Your task to perform on an android device: check data usage Image 0: 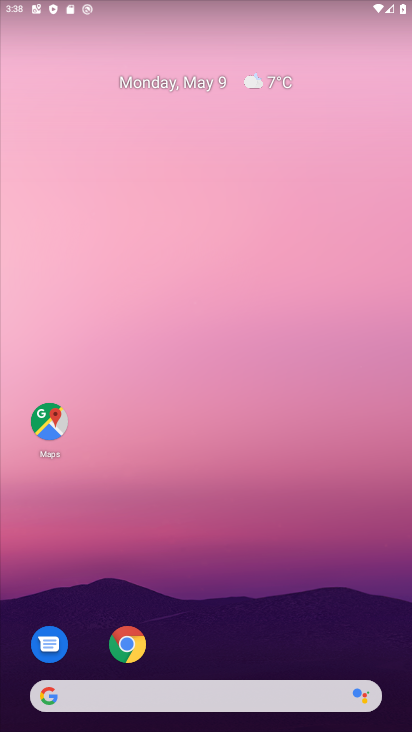
Step 0: click (272, 143)
Your task to perform on an android device: check data usage Image 1: 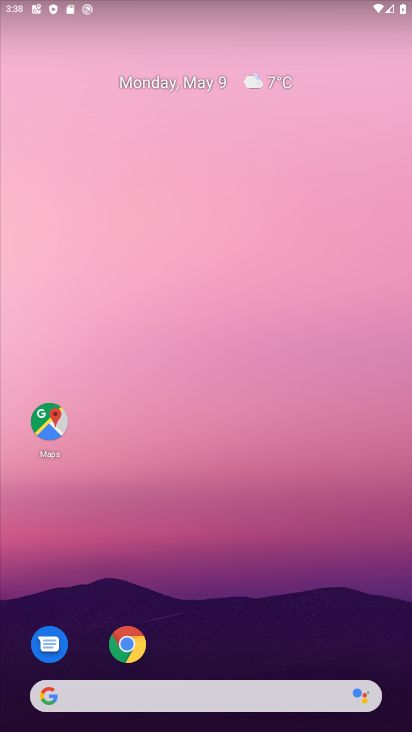
Step 1: drag from (294, 638) to (197, 81)
Your task to perform on an android device: check data usage Image 2: 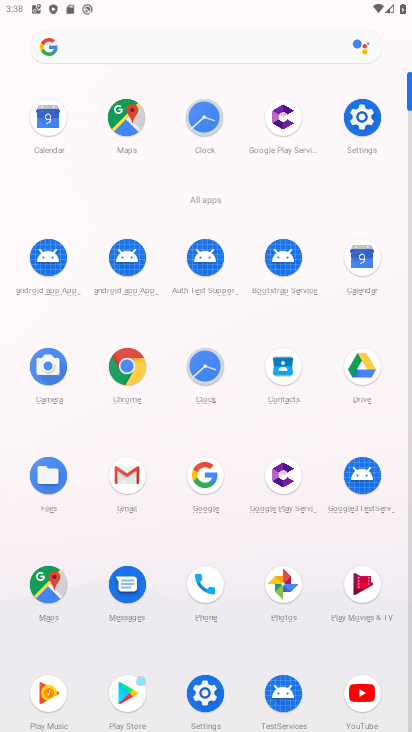
Step 2: click (366, 133)
Your task to perform on an android device: check data usage Image 3: 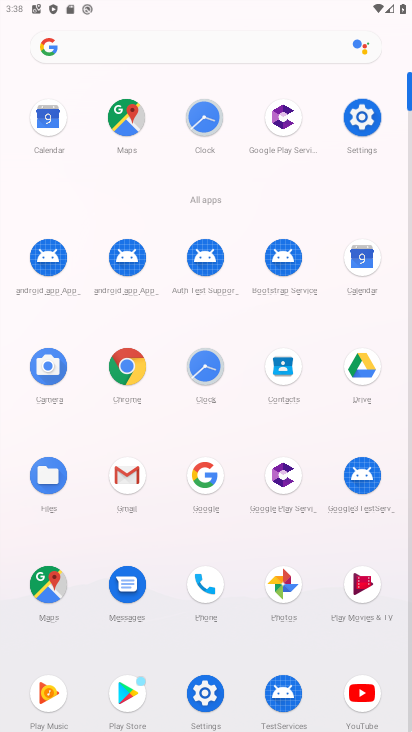
Step 3: click (366, 133)
Your task to perform on an android device: check data usage Image 4: 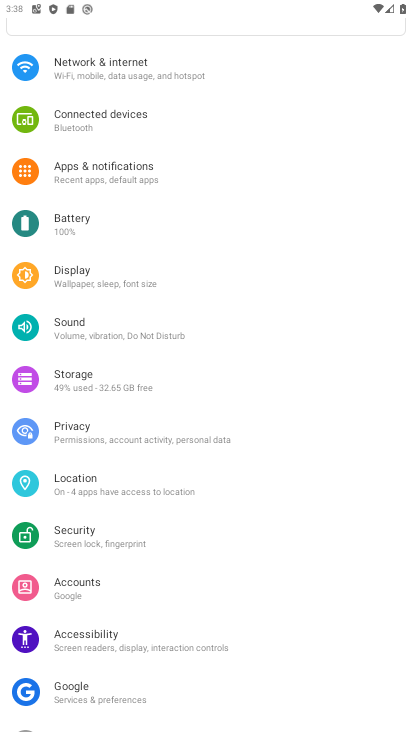
Step 4: click (111, 73)
Your task to perform on an android device: check data usage Image 5: 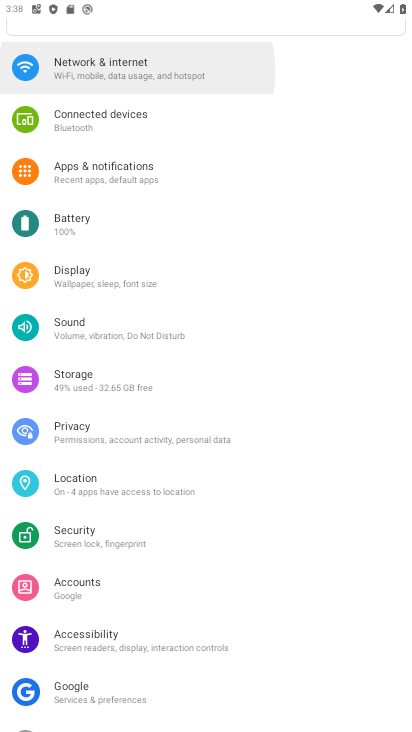
Step 5: click (111, 72)
Your task to perform on an android device: check data usage Image 6: 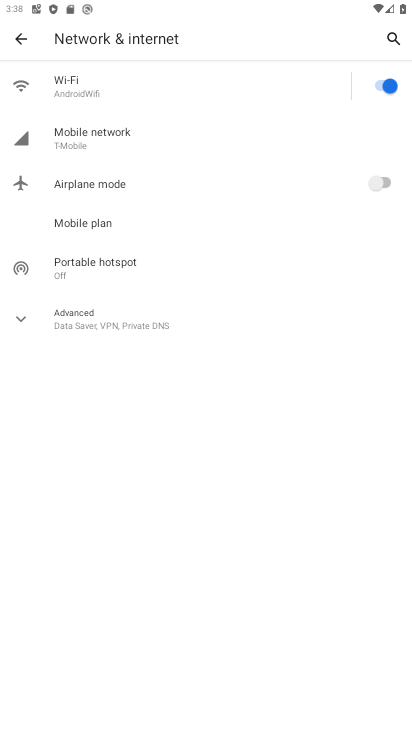
Step 6: task complete